Your task to perform on an android device: Open Google Maps and go to "Timeline" Image 0: 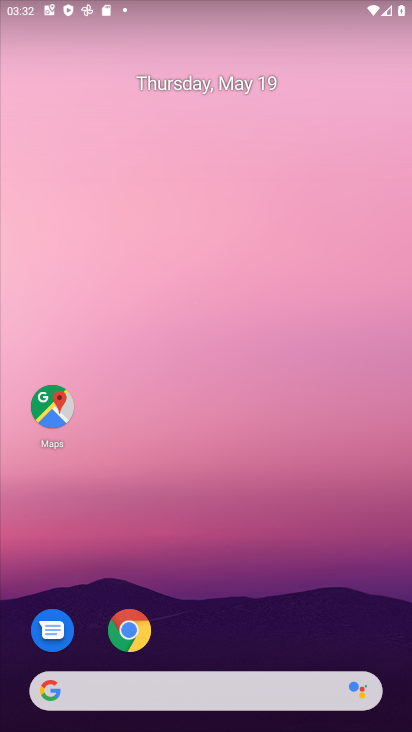
Step 0: click (49, 404)
Your task to perform on an android device: Open Google Maps and go to "Timeline" Image 1: 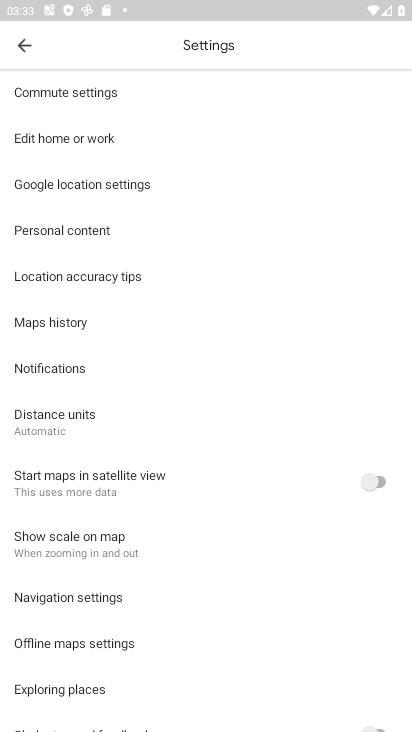
Step 1: press back button
Your task to perform on an android device: Open Google Maps and go to "Timeline" Image 2: 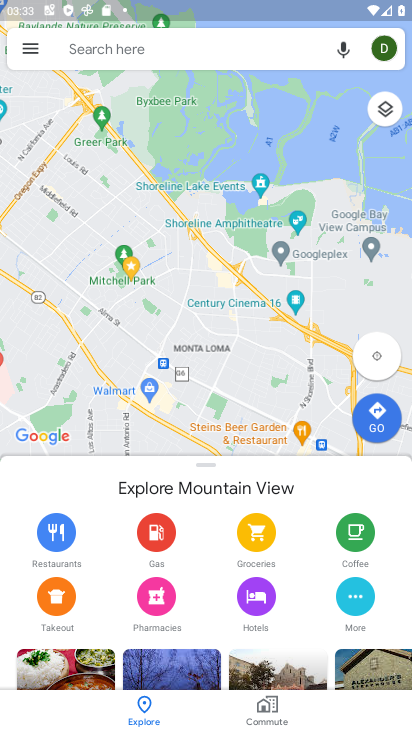
Step 2: click (28, 48)
Your task to perform on an android device: Open Google Maps and go to "Timeline" Image 3: 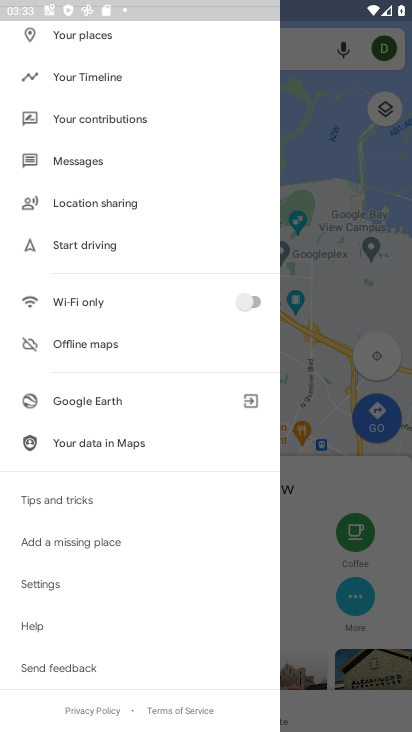
Step 3: click (98, 77)
Your task to perform on an android device: Open Google Maps and go to "Timeline" Image 4: 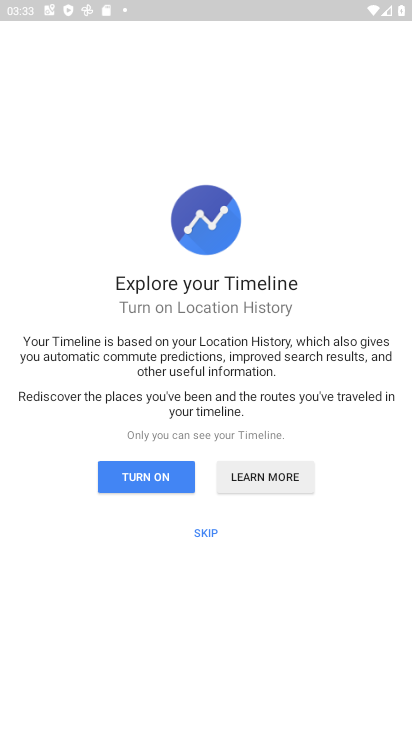
Step 4: click (208, 535)
Your task to perform on an android device: Open Google Maps and go to "Timeline" Image 5: 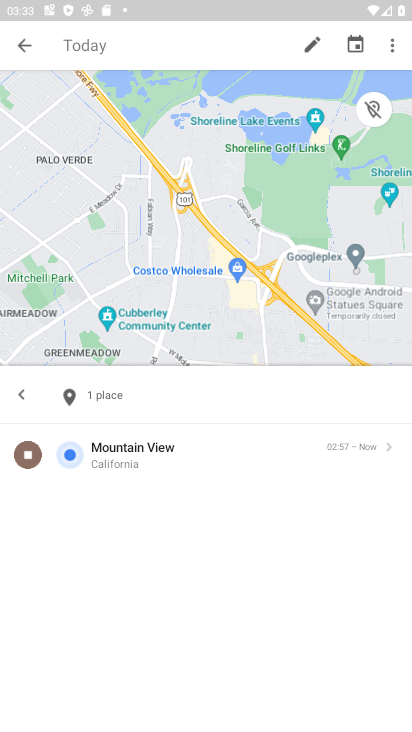
Step 5: task complete